Your task to perform on an android device: Open sound settings Image 0: 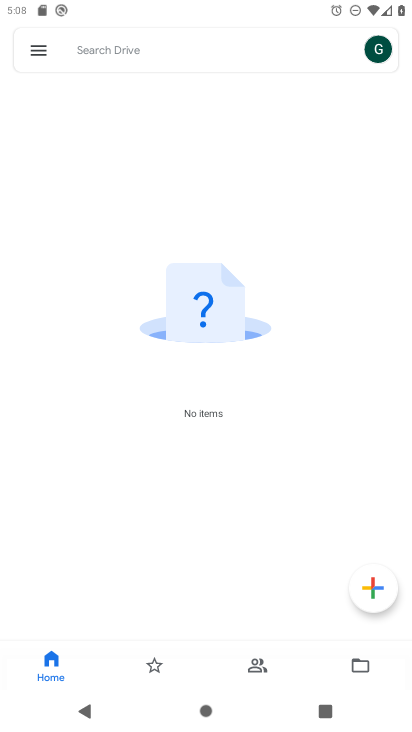
Step 0: press home button
Your task to perform on an android device: Open sound settings Image 1: 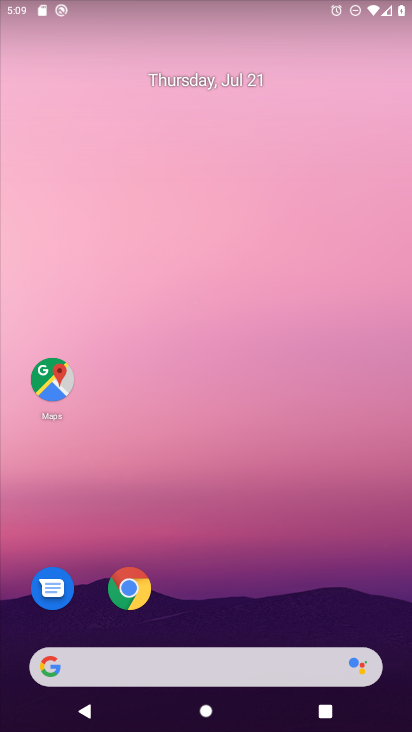
Step 1: drag from (334, 619) to (227, 158)
Your task to perform on an android device: Open sound settings Image 2: 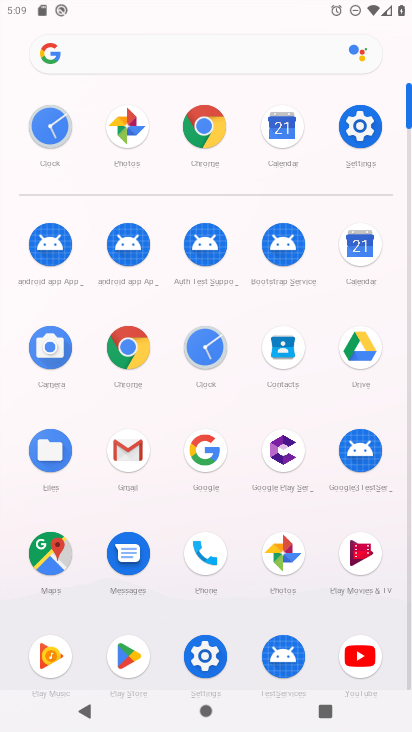
Step 2: click (364, 132)
Your task to perform on an android device: Open sound settings Image 3: 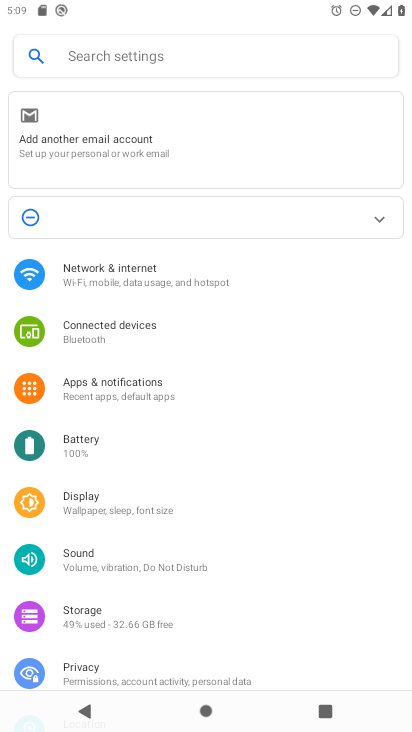
Step 3: click (129, 564)
Your task to perform on an android device: Open sound settings Image 4: 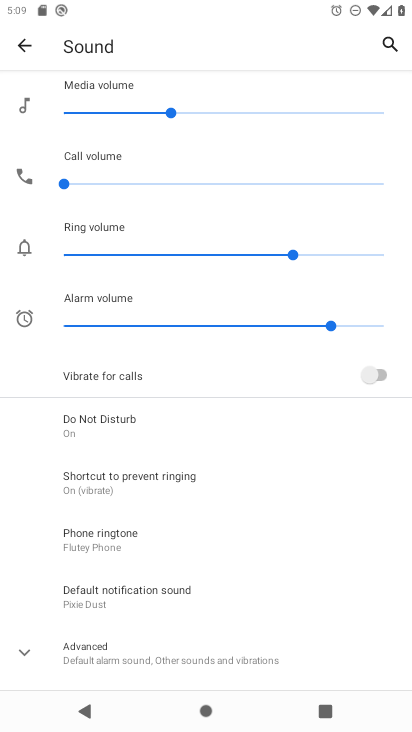
Step 4: task complete